Your task to perform on an android device: Open the web browser Image 0: 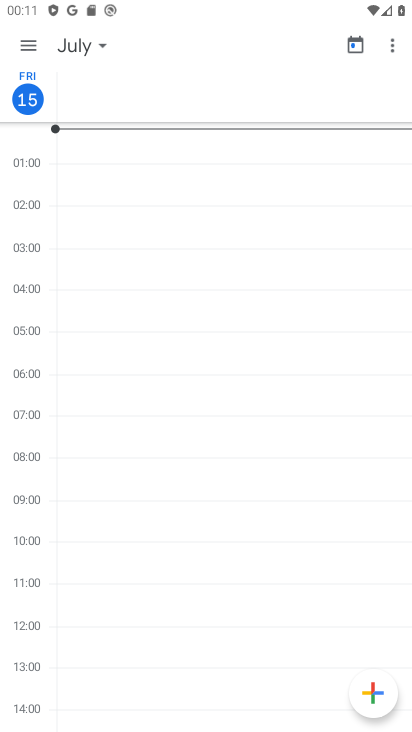
Step 0: press home button
Your task to perform on an android device: Open the web browser Image 1: 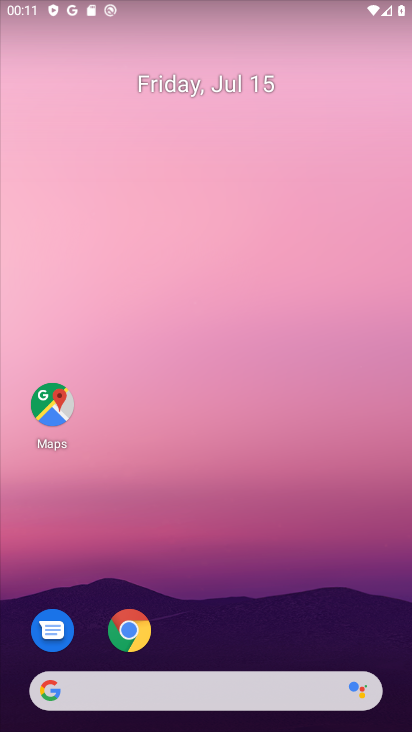
Step 1: click (131, 646)
Your task to perform on an android device: Open the web browser Image 2: 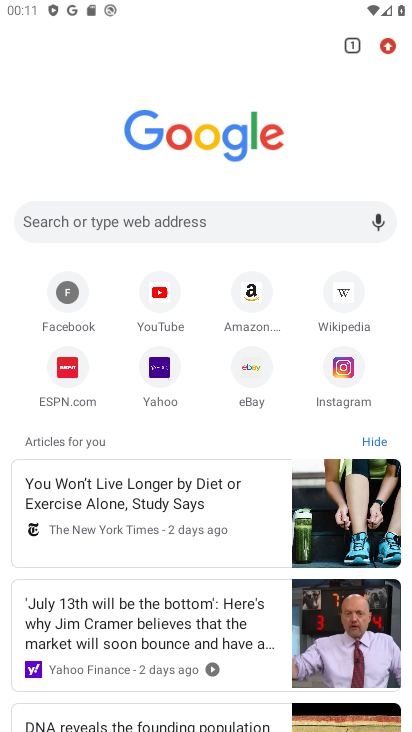
Step 2: task complete